Your task to perform on an android device: delete a single message in the gmail app Image 0: 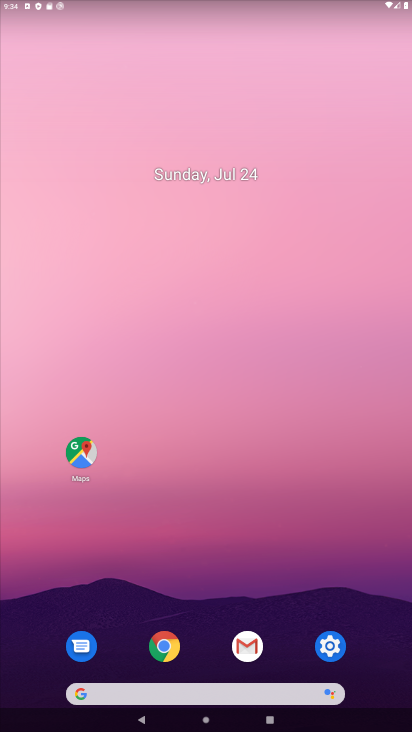
Step 0: click (246, 647)
Your task to perform on an android device: delete a single message in the gmail app Image 1: 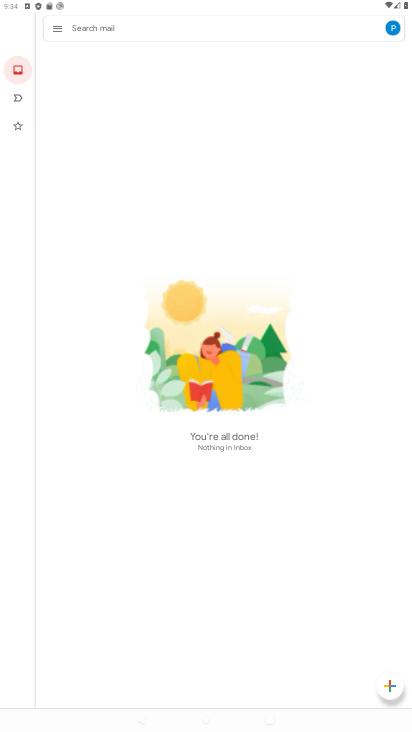
Step 1: click (44, 24)
Your task to perform on an android device: delete a single message in the gmail app Image 2: 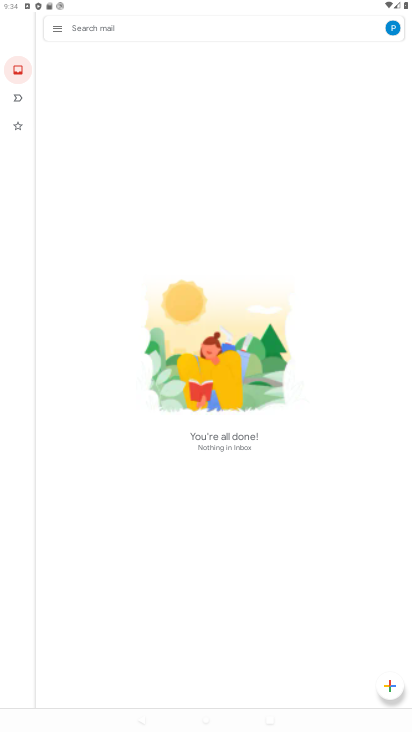
Step 2: click (52, 30)
Your task to perform on an android device: delete a single message in the gmail app Image 3: 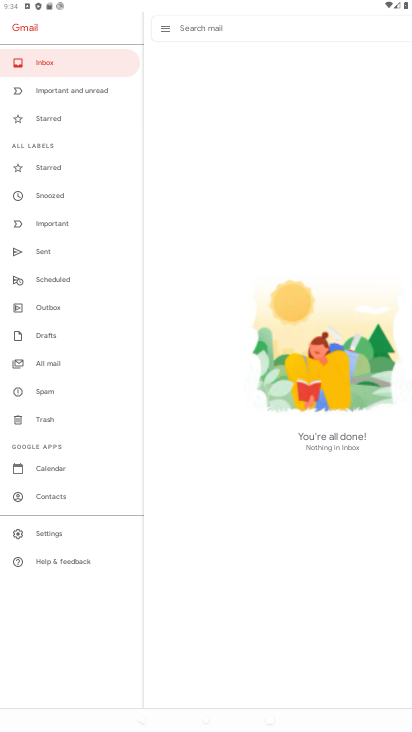
Step 3: click (64, 356)
Your task to perform on an android device: delete a single message in the gmail app Image 4: 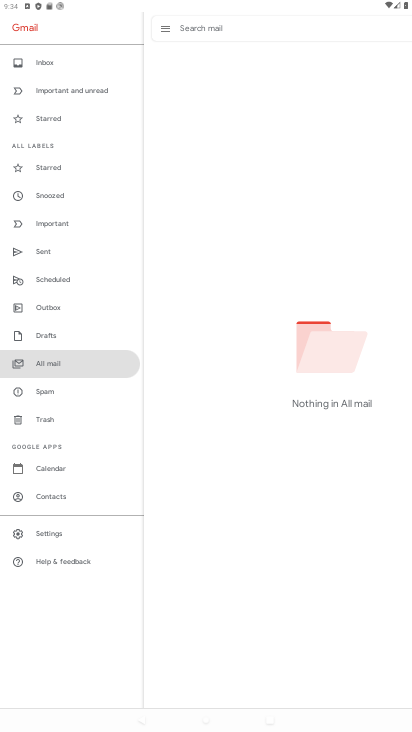
Step 4: task complete